Your task to perform on an android device: add a label to a message in the gmail app Image 0: 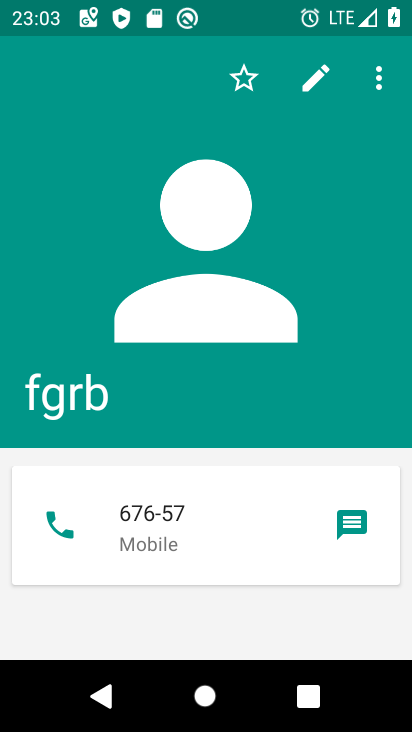
Step 0: press back button
Your task to perform on an android device: add a label to a message in the gmail app Image 1: 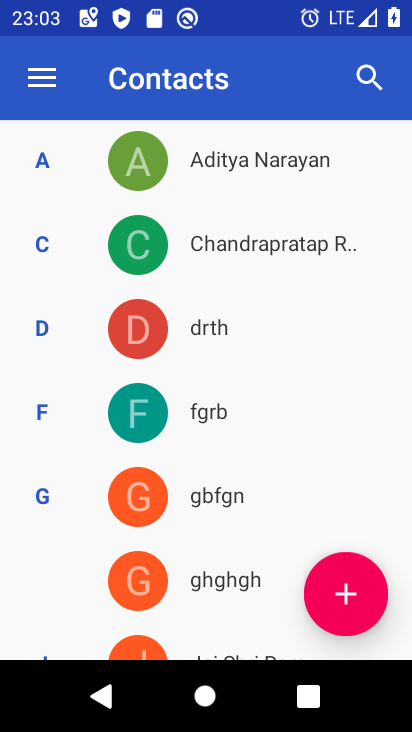
Step 1: press back button
Your task to perform on an android device: add a label to a message in the gmail app Image 2: 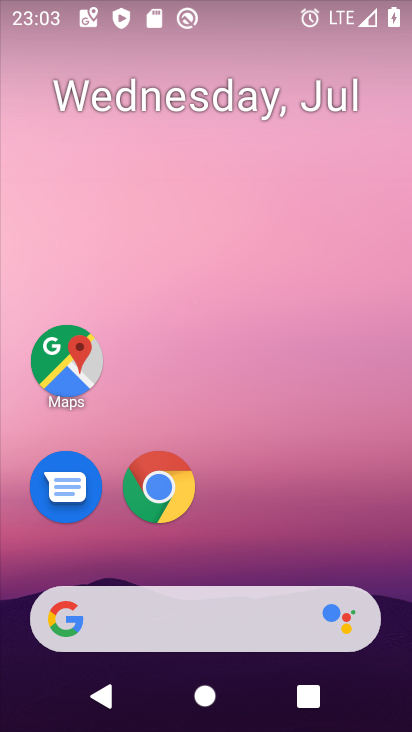
Step 2: drag from (276, 545) to (228, 7)
Your task to perform on an android device: add a label to a message in the gmail app Image 3: 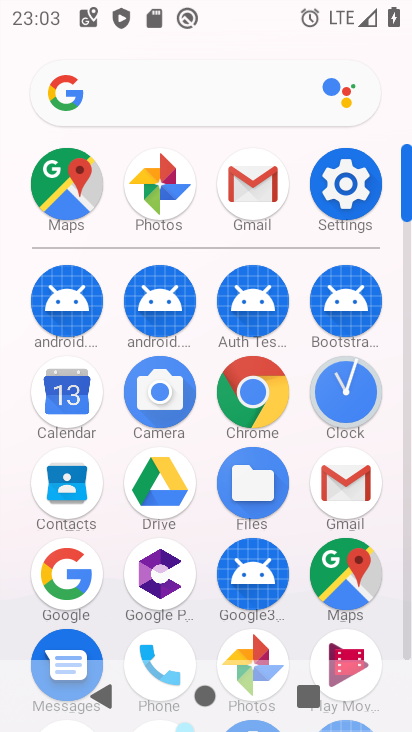
Step 3: click (265, 181)
Your task to perform on an android device: add a label to a message in the gmail app Image 4: 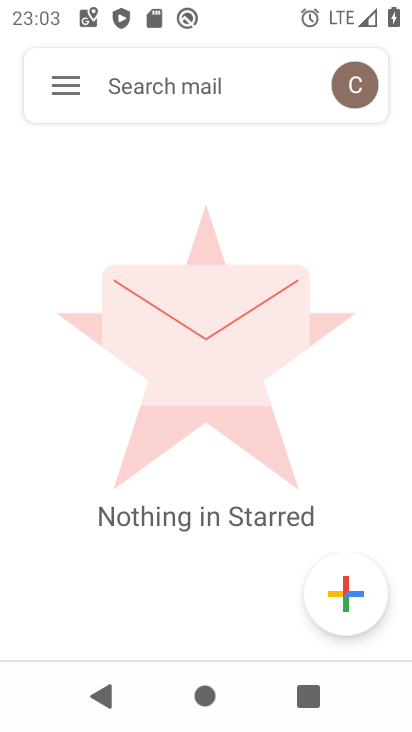
Step 4: click (54, 80)
Your task to perform on an android device: add a label to a message in the gmail app Image 5: 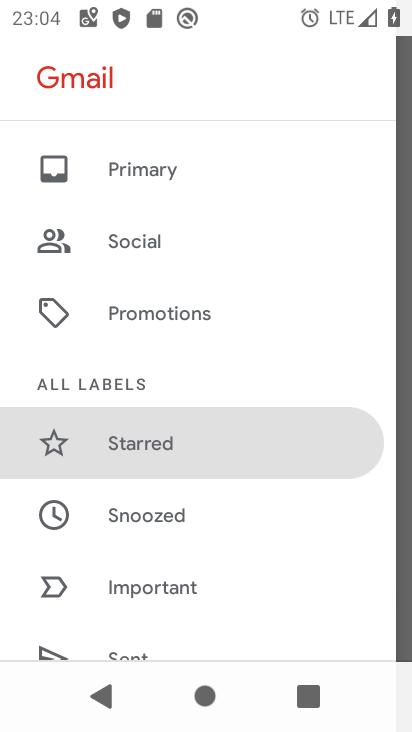
Step 5: drag from (156, 581) to (254, 20)
Your task to perform on an android device: add a label to a message in the gmail app Image 6: 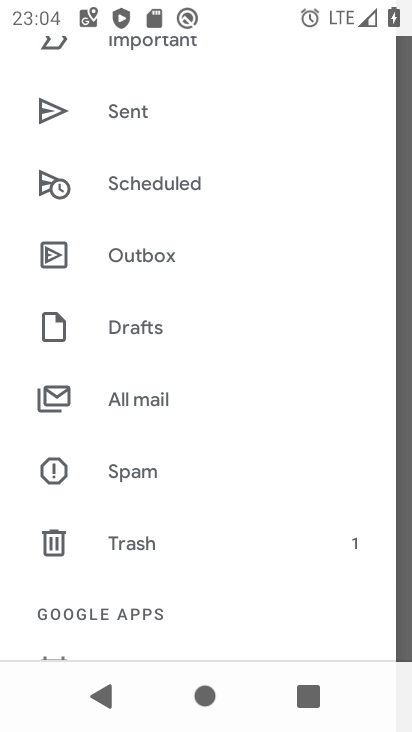
Step 6: click (173, 390)
Your task to perform on an android device: add a label to a message in the gmail app Image 7: 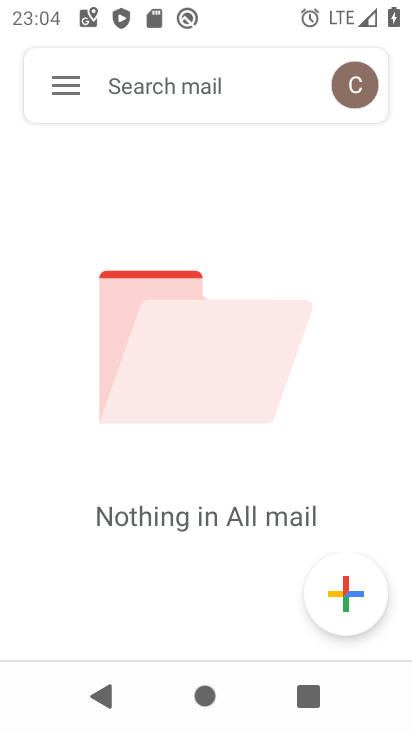
Step 7: task complete